Your task to perform on an android device: Search for "usb-a to usb-b" on amazon.com, select the first entry, add it to the cart, then select checkout. Image 0: 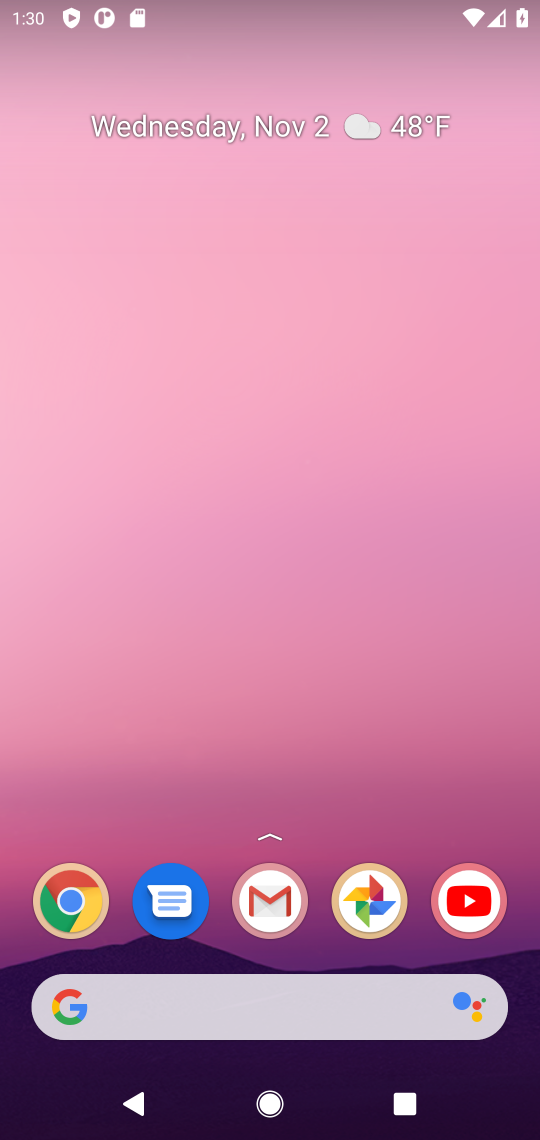
Step 0: drag from (314, 947) to (524, 459)
Your task to perform on an android device: Search for "usb-a to usb-b" on amazon.com, select the first entry, add it to the cart, then select checkout. Image 1: 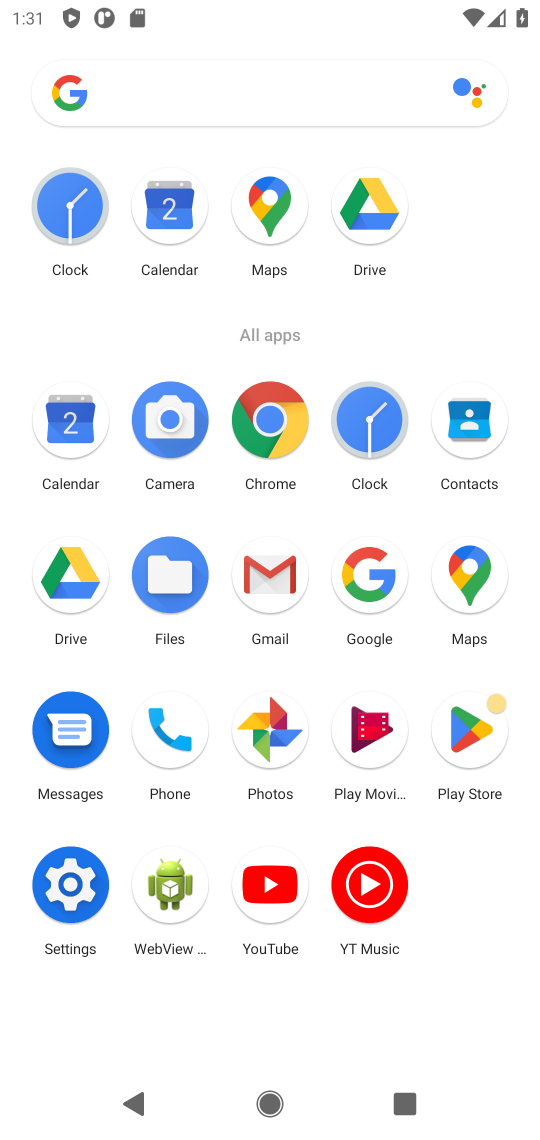
Step 1: click (277, 428)
Your task to perform on an android device: Search for "usb-a to usb-b" on amazon.com, select the first entry, add it to the cart, then select checkout. Image 2: 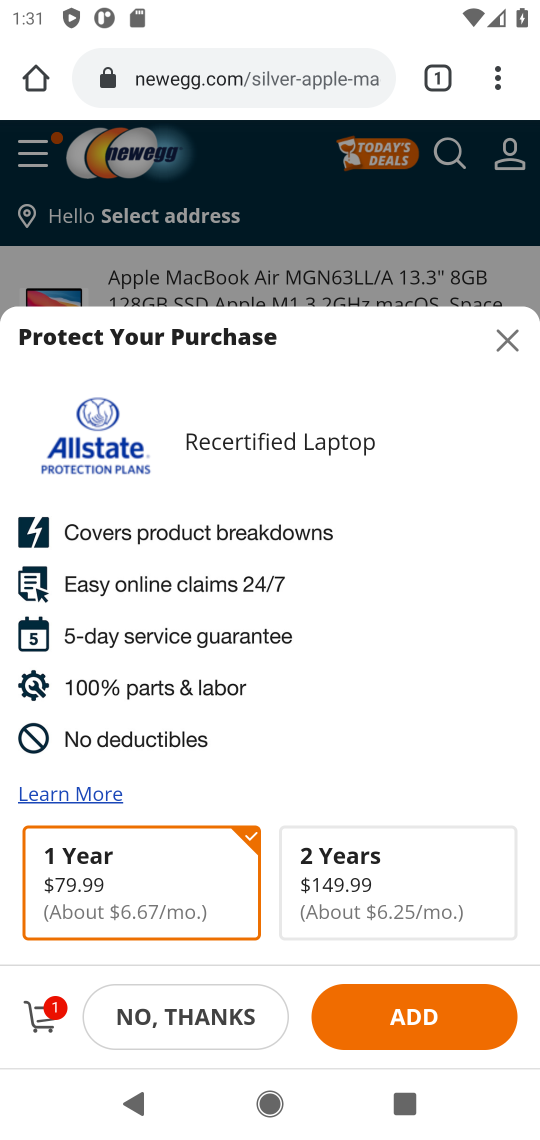
Step 2: click (490, 338)
Your task to perform on an android device: Search for "usb-a to usb-b" on amazon.com, select the first entry, add it to the cart, then select checkout. Image 3: 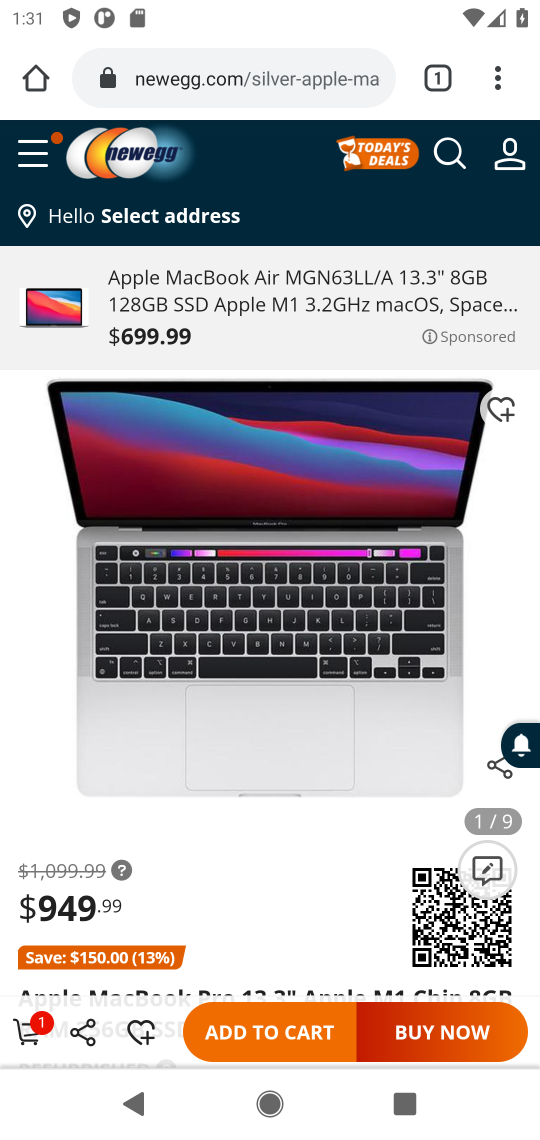
Step 3: click (452, 142)
Your task to perform on an android device: Search for "usb-a to usb-b" on amazon.com, select the first entry, add it to the cart, then select checkout. Image 4: 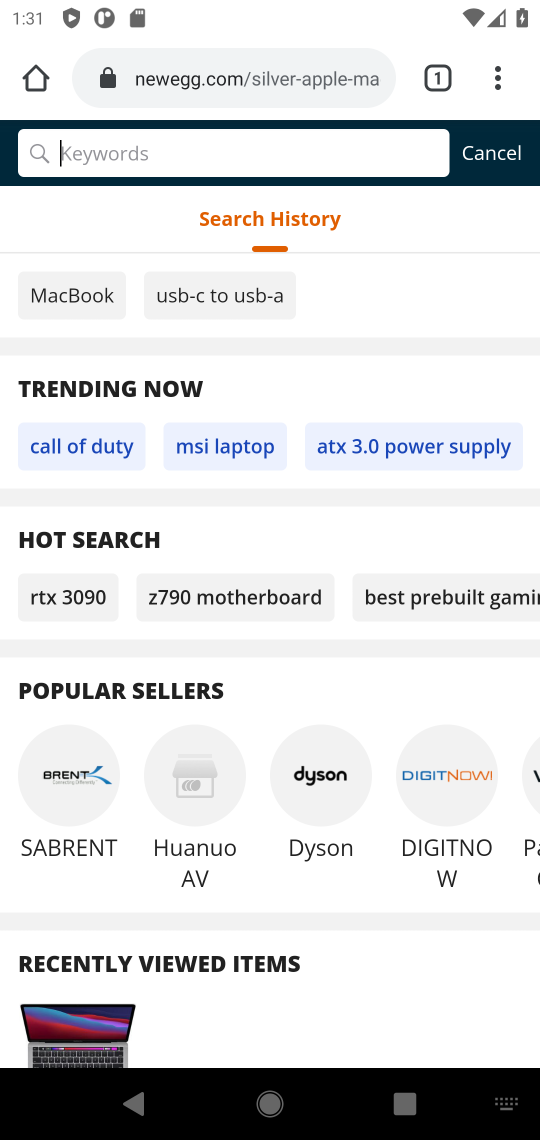
Step 4: type "usb-a to usb b"
Your task to perform on an android device: Search for "usb-a to usb-b" on amazon.com, select the first entry, add it to the cart, then select checkout. Image 5: 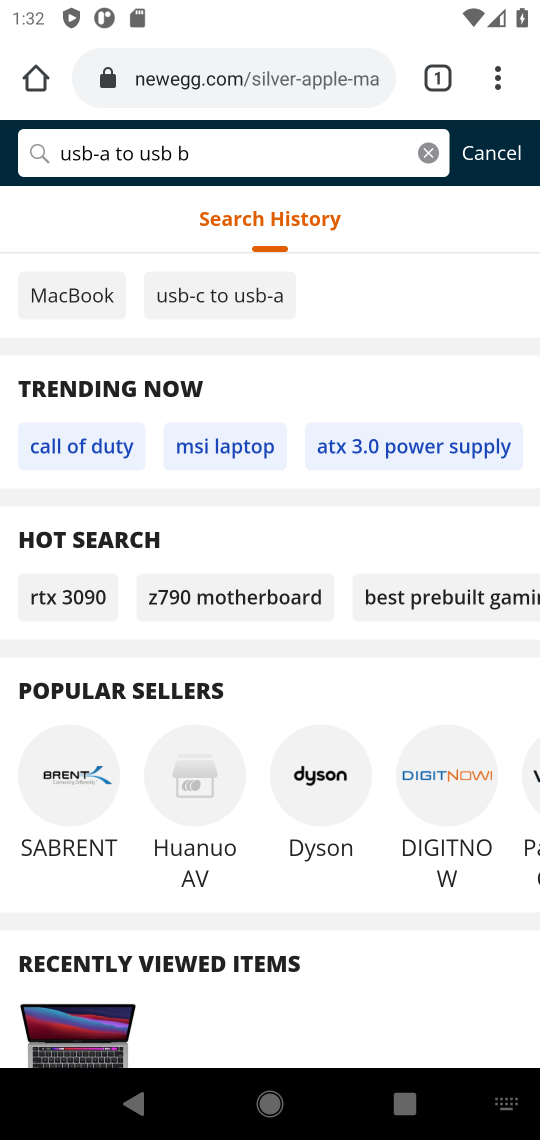
Step 5: task complete